Your task to perform on an android device: Open Google Chrome and click the shortcut for Amazon.com Image 0: 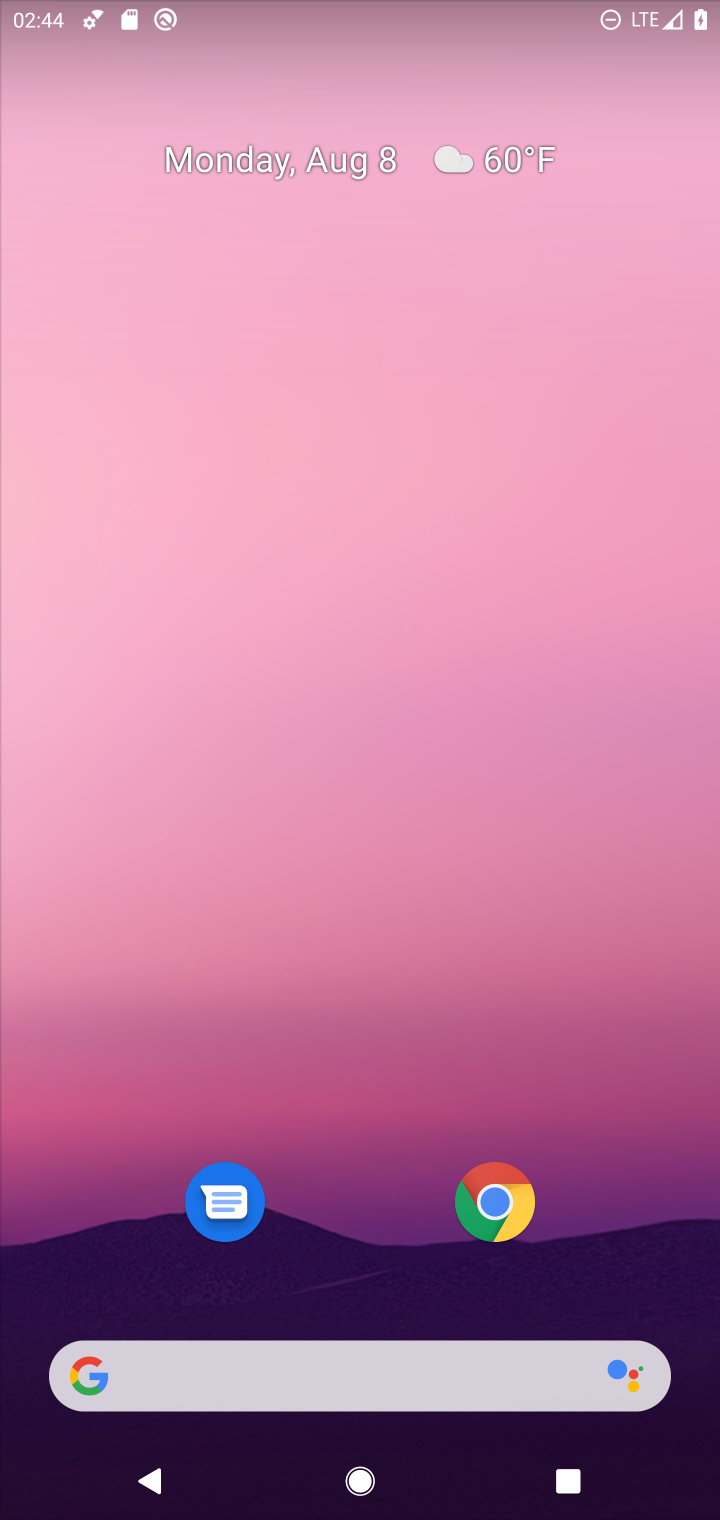
Step 0: press home button
Your task to perform on an android device: Open Google Chrome and click the shortcut for Amazon.com Image 1: 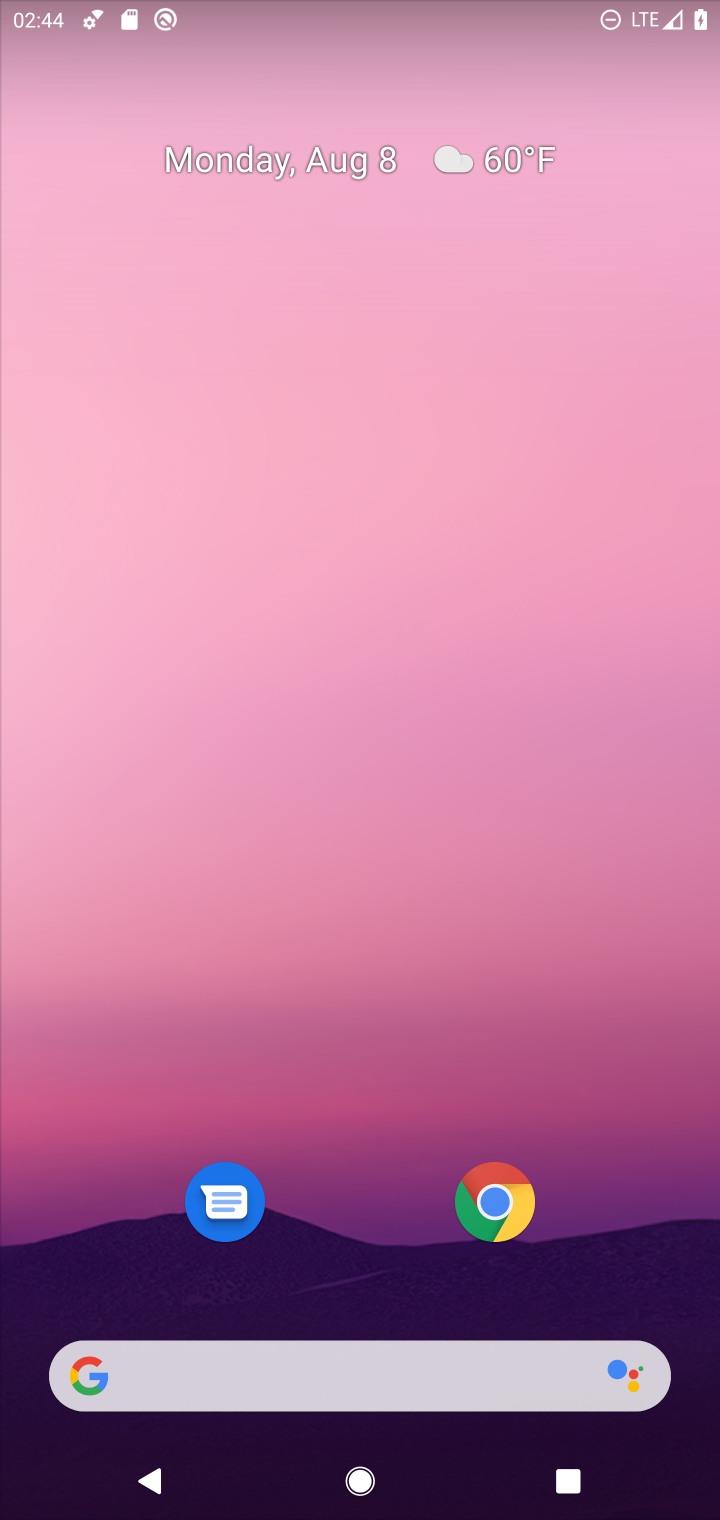
Step 1: drag from (601, 1229) to (655, 302)
Your task to perform on an android device: Open Google Chrome and click the shortcut for Amazon.com Image 2: 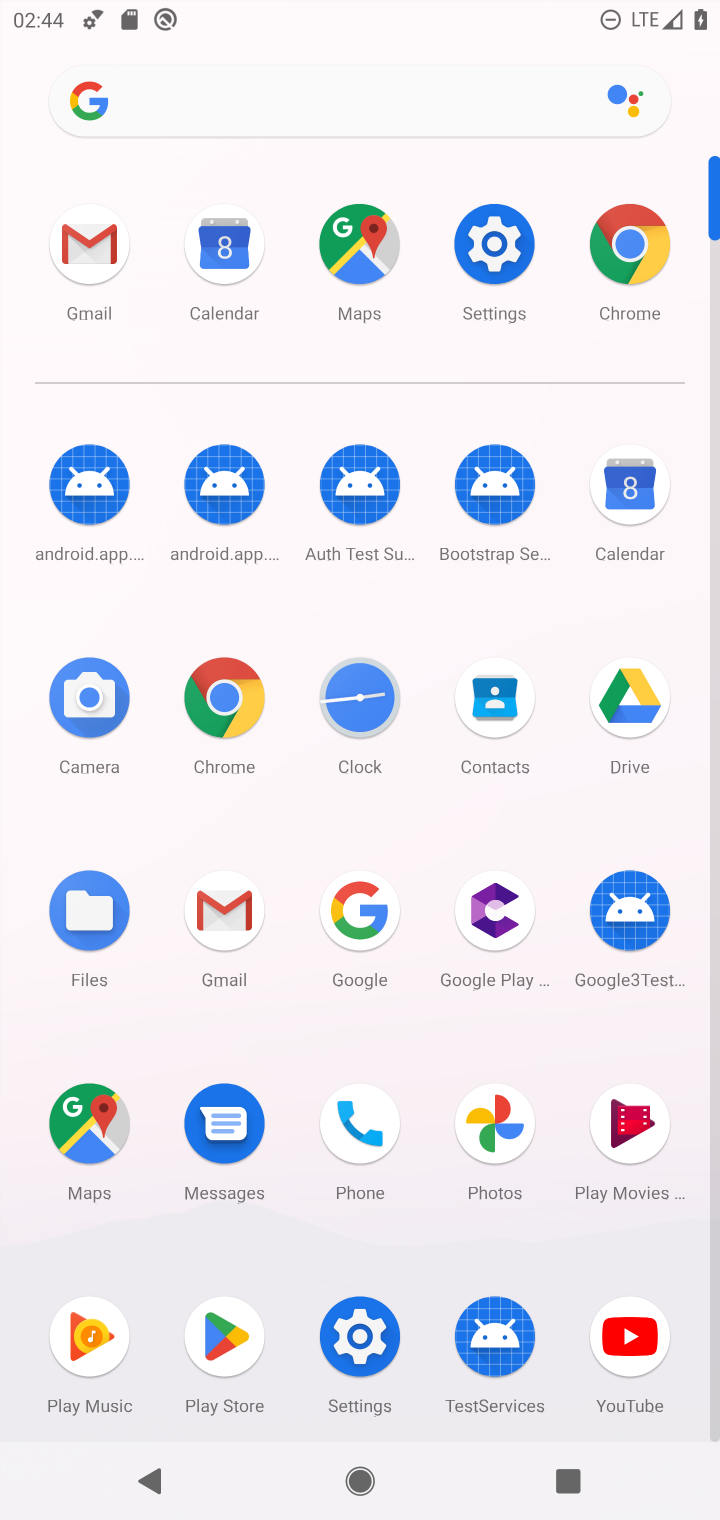
Step 2: click (226, 708)
Your task to perform on an android device: Open Google Chrome and click the shortcut for Amazon.com Image 3: 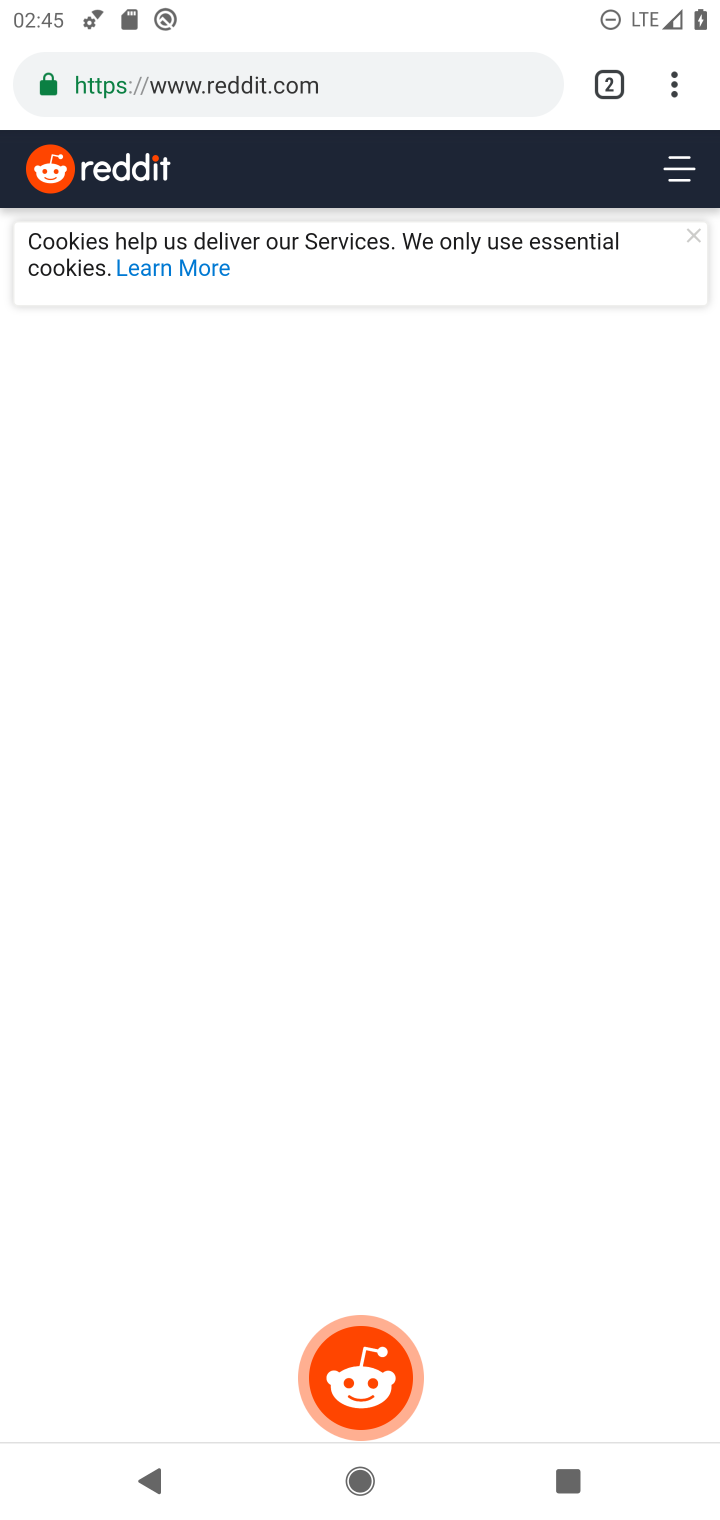
Step 3: press back button
Your task to perform on an android device: Open Google Chrome and click the shortcut for Amazon.com Image 4: 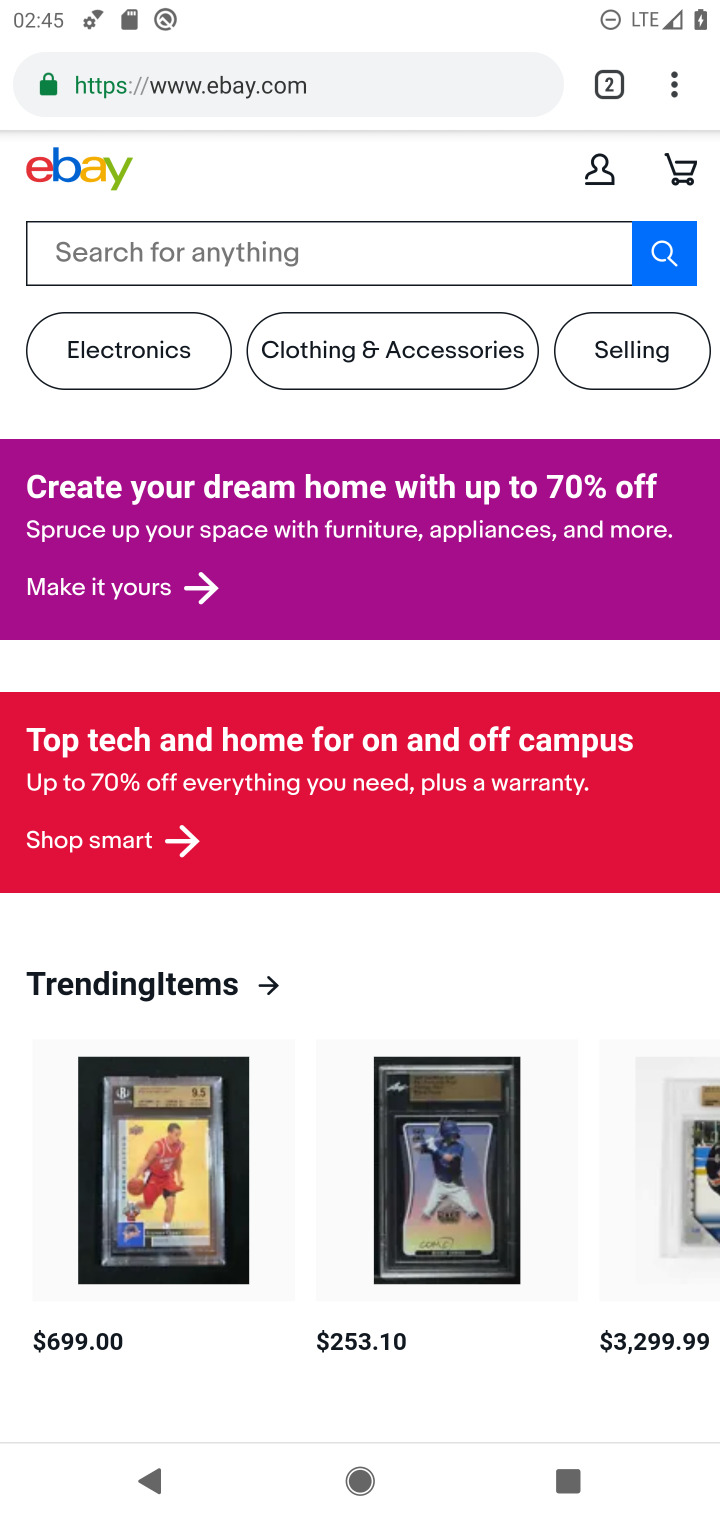
Step 4: press back button
Your task to perform on an android device: Open Google Chrome and click the shortcut for Amazon.com Image 5: 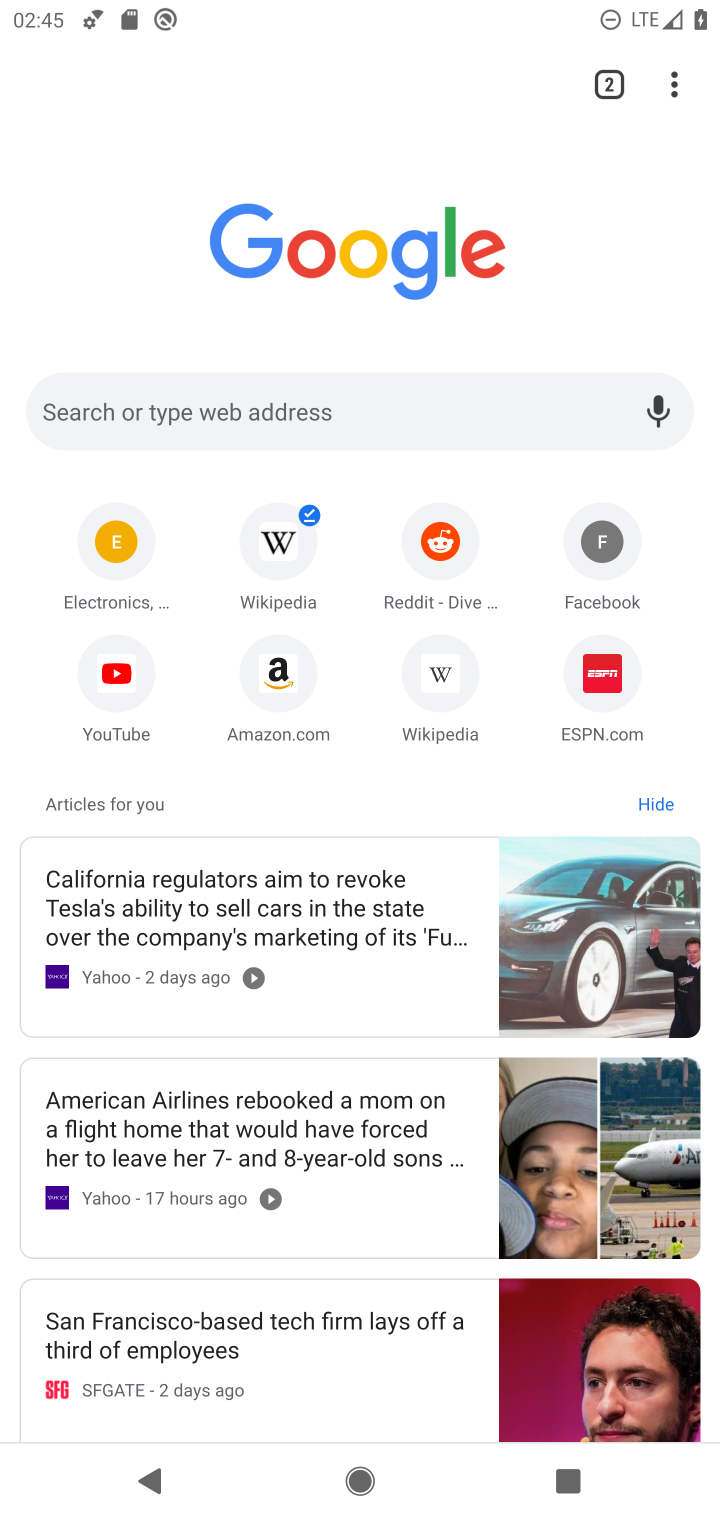
Step 5: click (259, 673)
Your task to perform on an android device: Open Google Chrome and click the shortcut for Amazon.com Image 6: 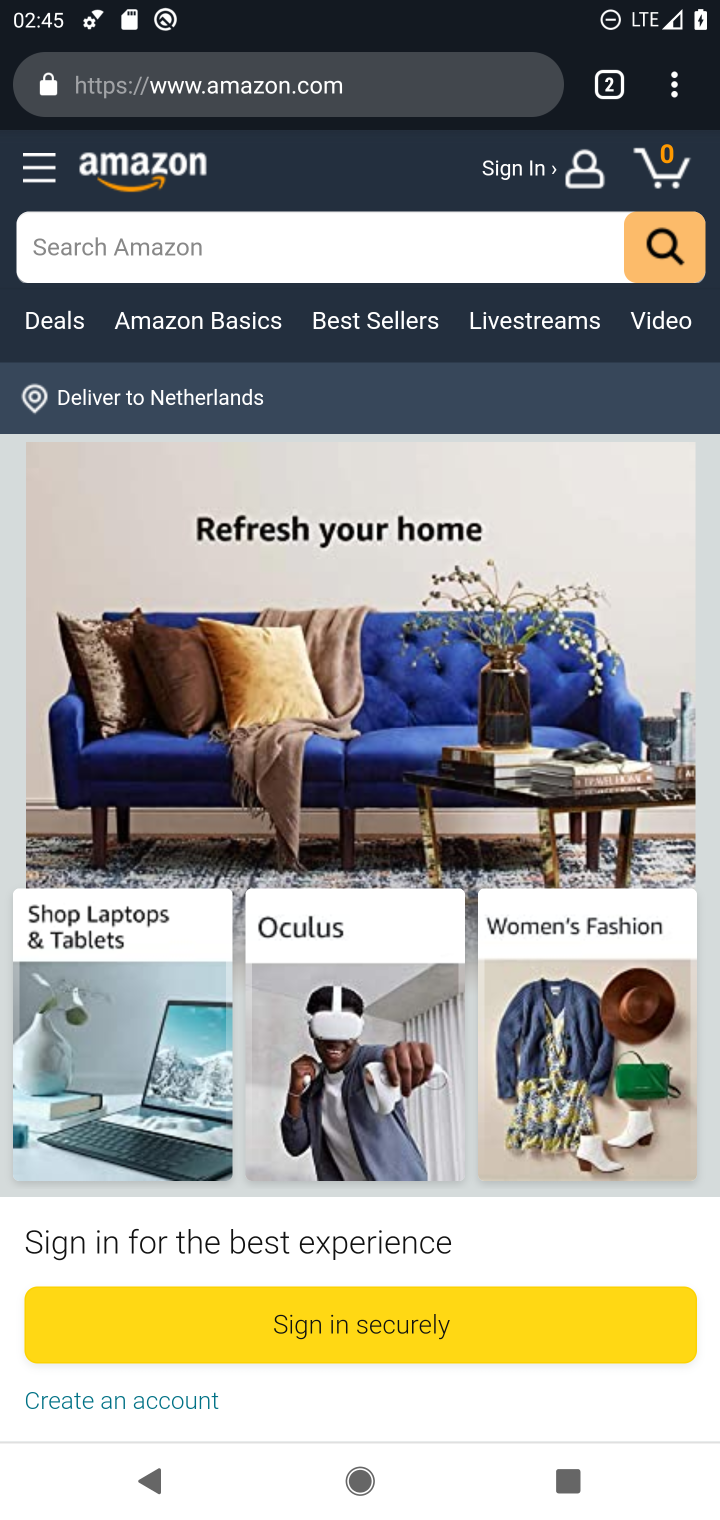
Step 6: task complete